Your task to perform on an android device: What's on my calendar today? Image 0: 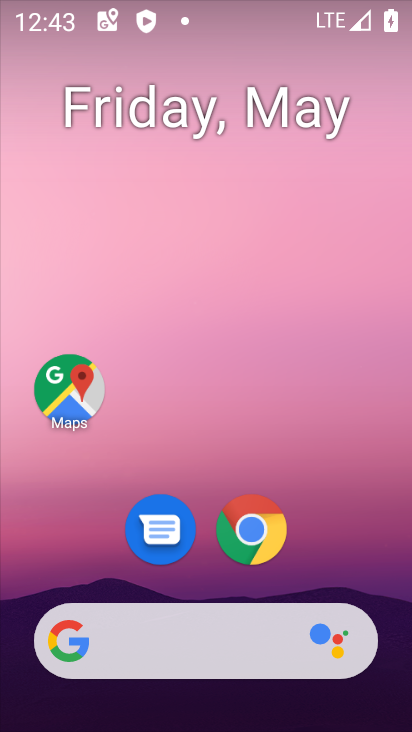
Step 0: drag from (356, 480) to (351, 439)
Your task to perform on an android device: What's on my calendar today? Image 1: 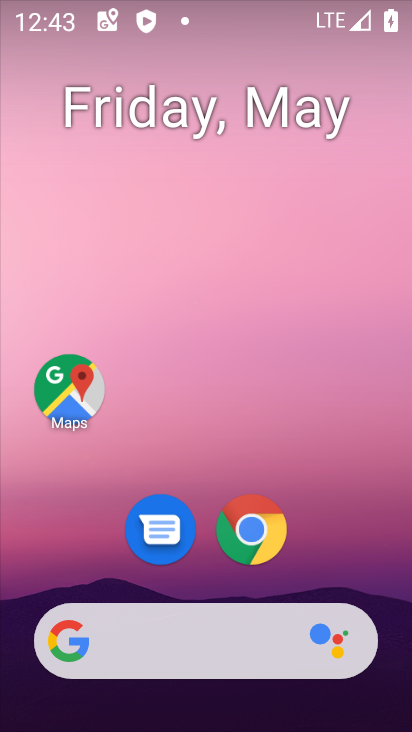
Step 1: drag from (210, 205) to (131, 109)
Your task to perform on an android device: What's on my calendar today? Image 2: 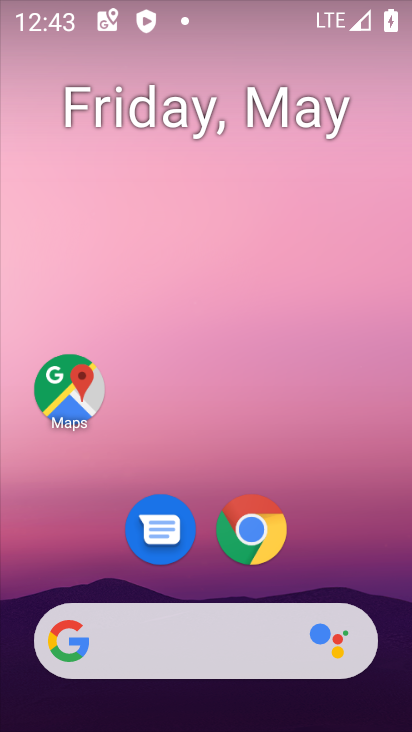
Step 2: drag from (318, 523) to (344, 64)
Your task to perform on an android device: What's on my calendar today? Image 3: 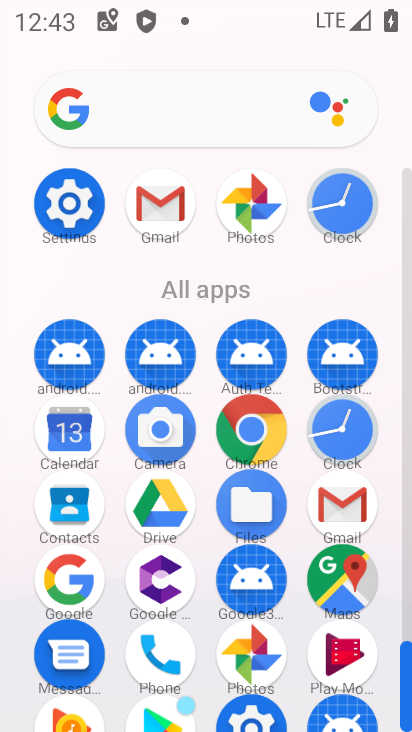
Step 3: click (62, 437)
Your task to perform on an android device: What's on my calendar today? Image 4: 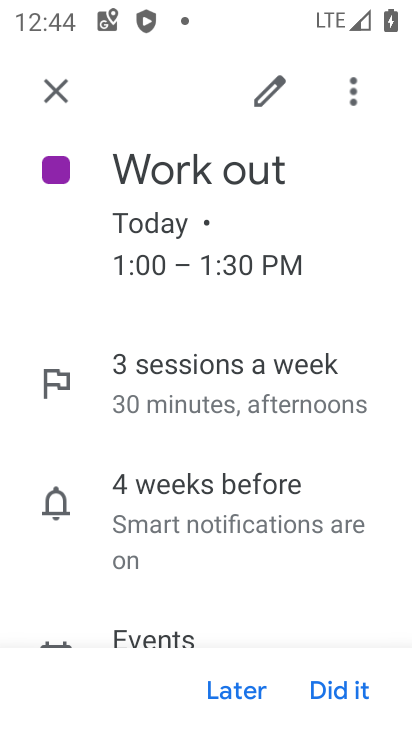
Step 4: click (62, 100)
Your task to perform on an android device: What's on my calendar today? Image 5: 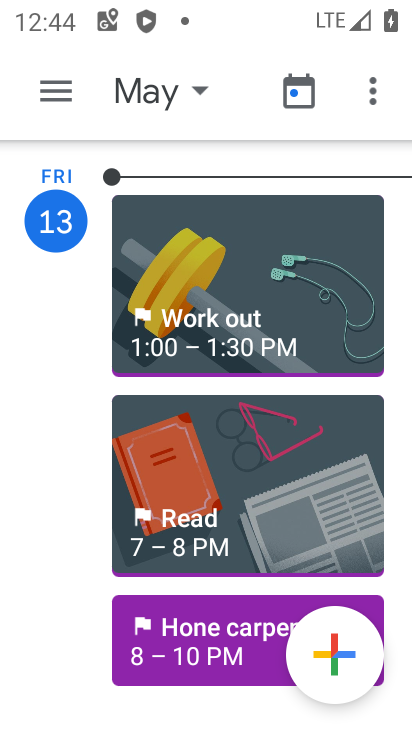
Step 5: click (62, 100)
Your task to perform on an android device: What's on my calendar today? Image 6: 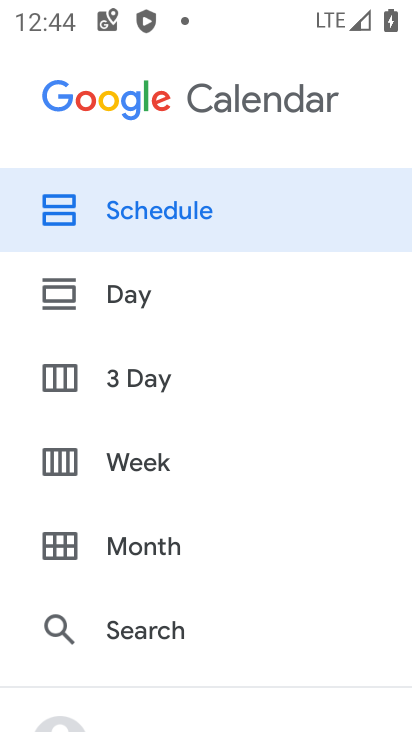
Step 6: click (151, 215)
Your task to perform on an android device: What's on my calendar today? Image 7: 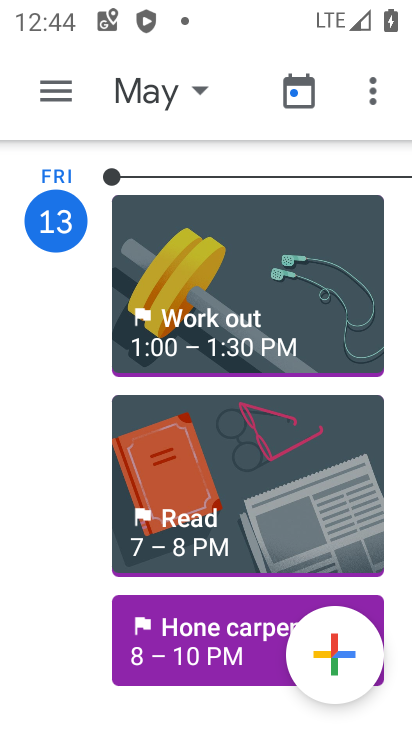
Step 7: task complete